Your task to perform on an android device: Go to network settings Image 0: 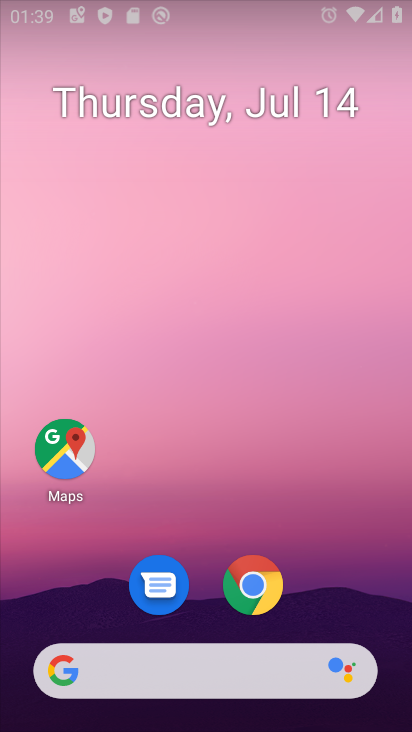
Step 0: drag from (355, 591) to (320, 34)
Your task to perform on an android device: Go to network settings Image 1: 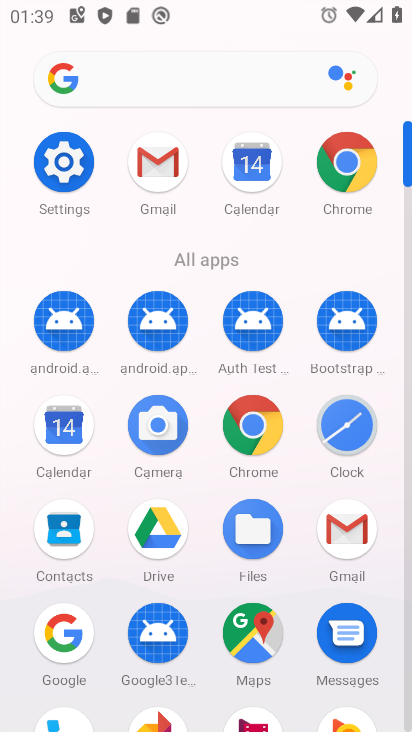
Step 1: click (72, 154)
Your task to perform on an android device: Go to network settings Image 2: 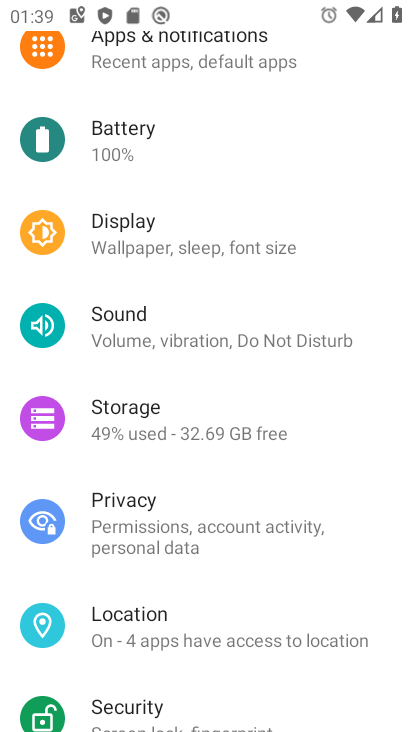
Step 2: drag from (258, 190) to (262, 679)
Your task to perform on an android device: Go to network settings Image 3: 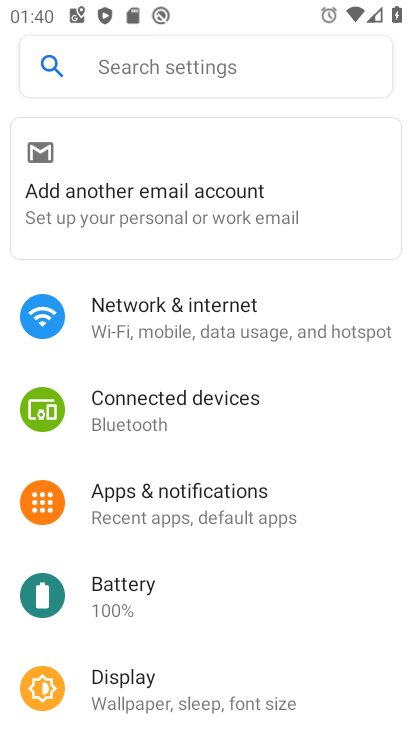
Step 3: click (238, 326)
Your task to perform on an android device: Go to network settings Image 4: 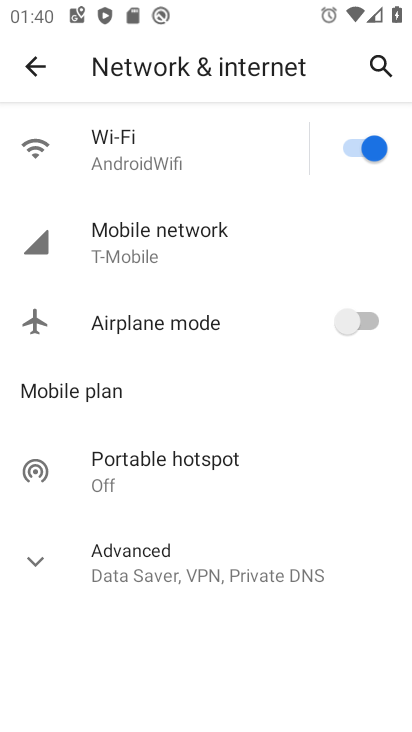
Step 4: task complete